Your task to perform on an android device: Is it going to rain tomorrow? Image 0: 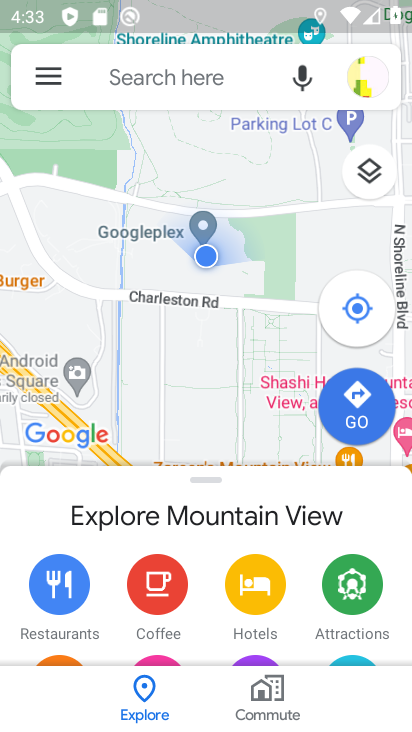
Step 0: press home button
Your task to perform on an android device: Is it going to rain tomorrow? Image 1: 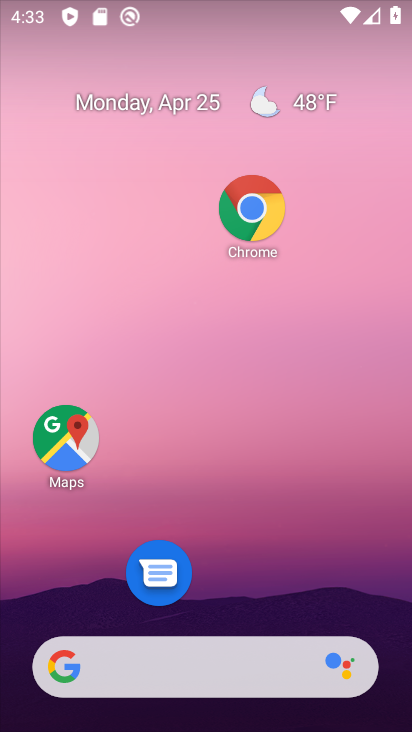
Step 1: drag from (227, 597) to (185, 100)
Your task to perform on an android device: Is it going to rain tomorrow? Image 2: 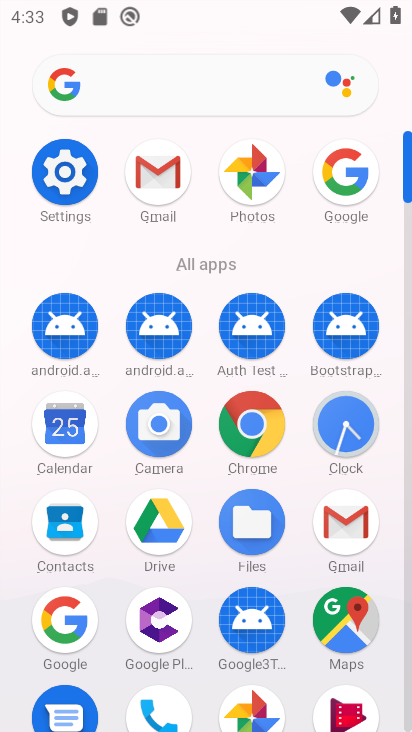
Step 2: click (66, 637)
Your task to perform on an android device: Is it going to rain tomorrow? Image 3: 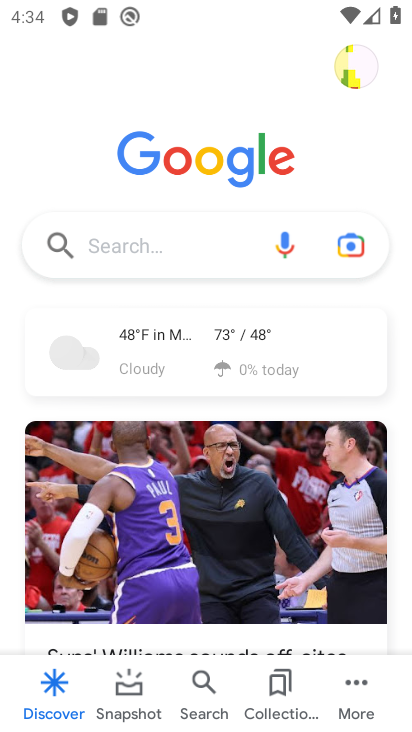
Step 3: click (143, 338)
Your task to perform on an android device: Is it going to rain tomorrow? Image 4: 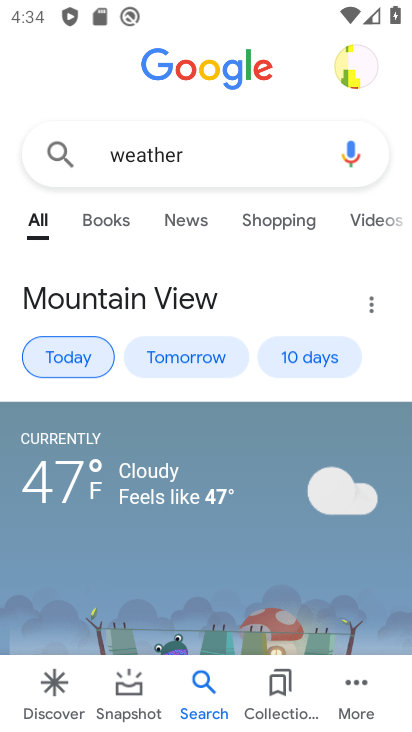
Step 4: click (185, 351)
Your task to perform on an android device: Is it going to rain tomorrow? Image 5: 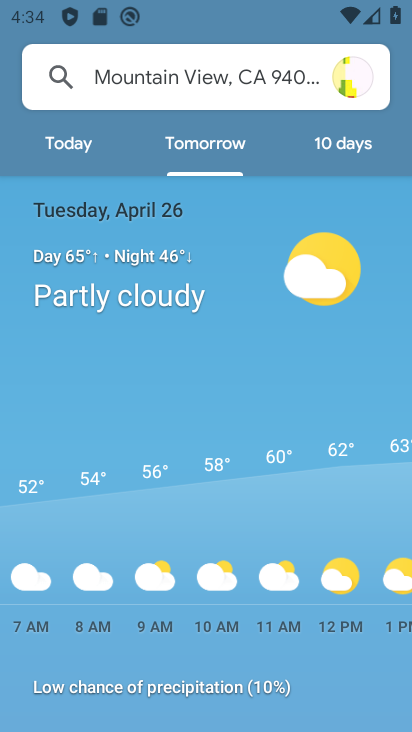
Step 5: task complete